Your task to perform on an android device: open app "Speedtest by Ookla" (install if not already installed) Image 0: 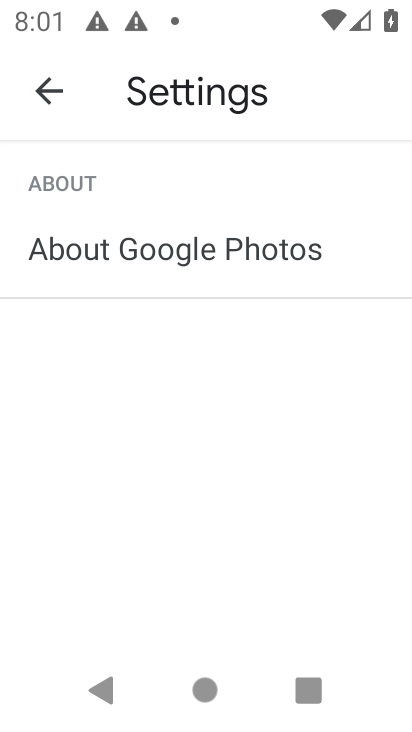
Step 0: press home button
Your task to perform on an android device: open app "Speedtest by Ookla" (install if not already installed) Image 1: 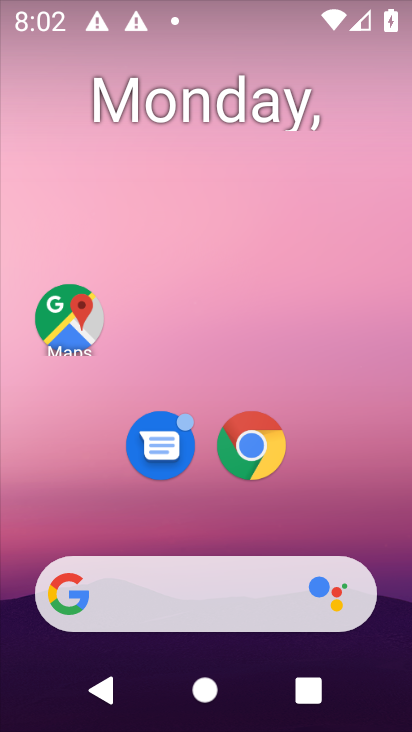
Step 1: drag from (393, 605) to (199, 39)
Your task to perform on an android device: open app "Speedtest by Ookla" (install if not already installed) Image 2: 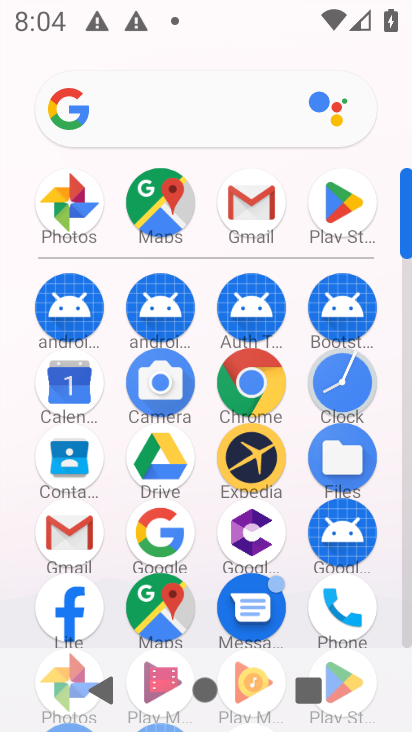
Step 2: click (351, 210)
Your task to perform on an android device: open app "Speedtest by Ookla" (install if not already installed) Image 3: 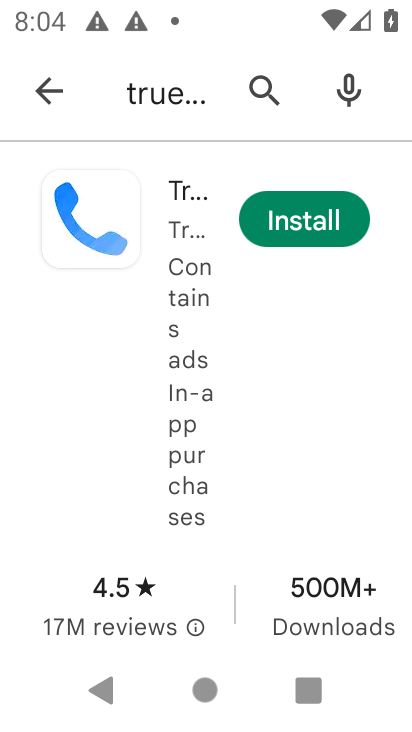
Step 3: press back button
Your task to perform on an android device: open app "Speedtest by Ookla" (install if not already installed) Image 4: 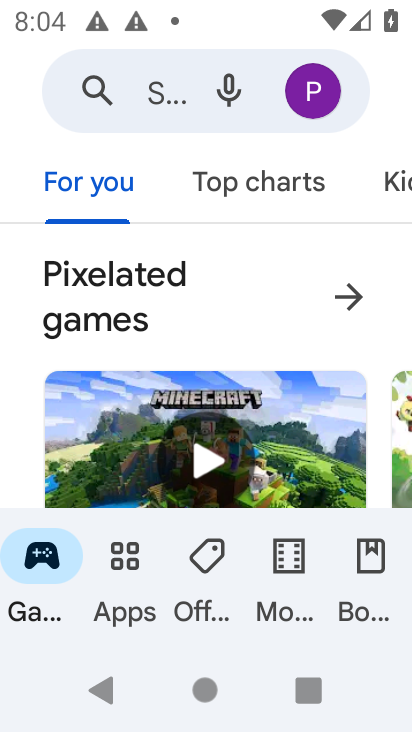
Step 4: click (149, 98)
Your task to perform on an android device: open app "Speedtest by Ookla" (install if not already installed) Image 5: 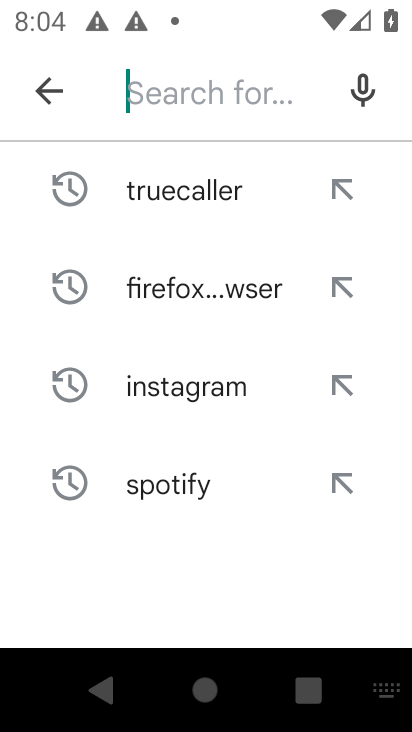
Step 5: type "Speedtest by Ookla"
Your task to perform on an android device: open app "Speedtest by Ookla" (install if not already installed) Image 6: 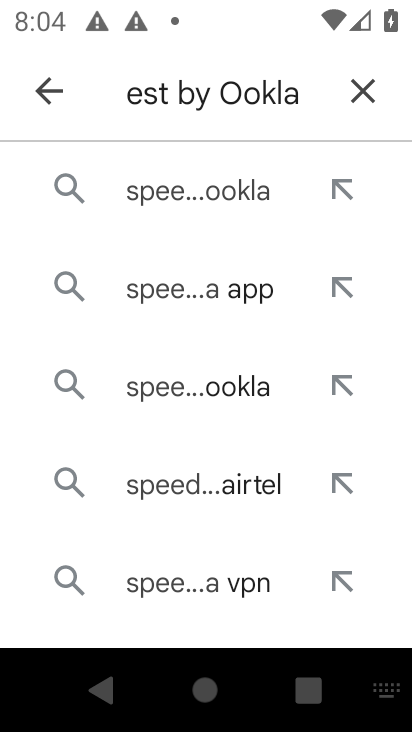
Step 6: click (158, 197)
Your task to perform on an android device: open app "Speedtest by Ookla" (install if not already installed) Image 7: 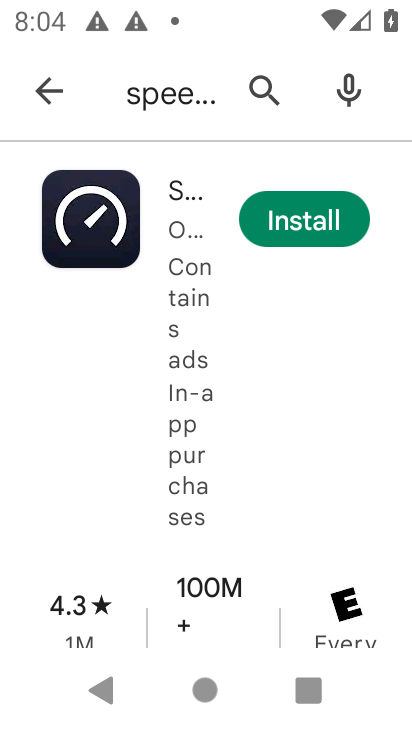
Step 7: task complete